Your task to perform on an android device: What's the weather going to be this weekend? Image 0: 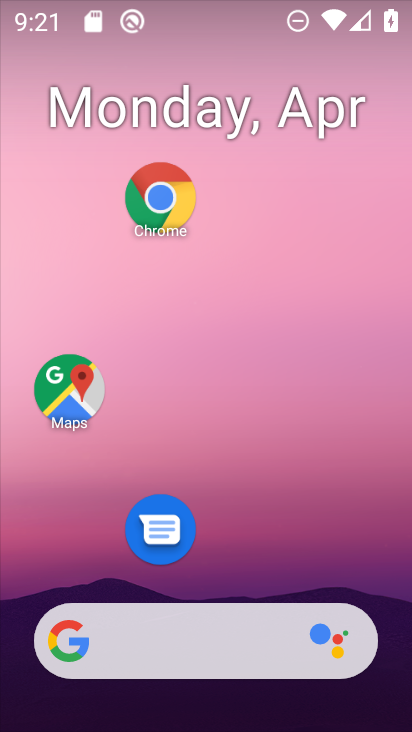
Step 0: click (155, 633)
Your task to perform on an android device: What's the weather going to be this weekend? Image 1: 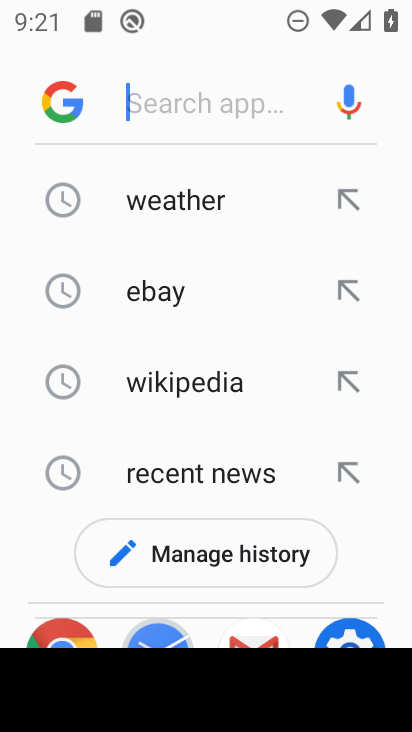
Step 1: click (159, 209)
Your task to perform on an android device: What's the weather going to be this weekend? Image 2: 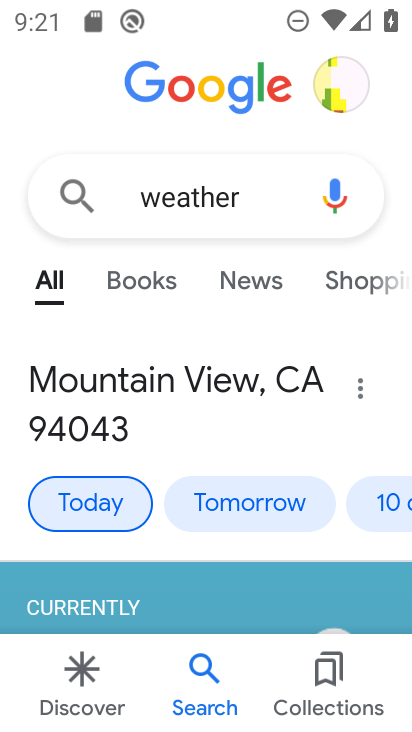
Step 2: drag from (150, 559) to (246, 159)
Your task to perform on an android device: What's the weather going to be this weekend? Image 3: 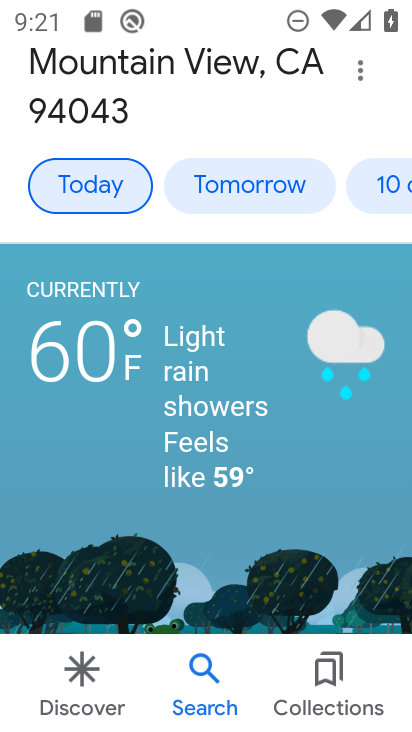
Step 3: drag from (202, 550) to (307, 106)
Your task to perform on an android device: What's the weather going to be this weekend? Image 4: 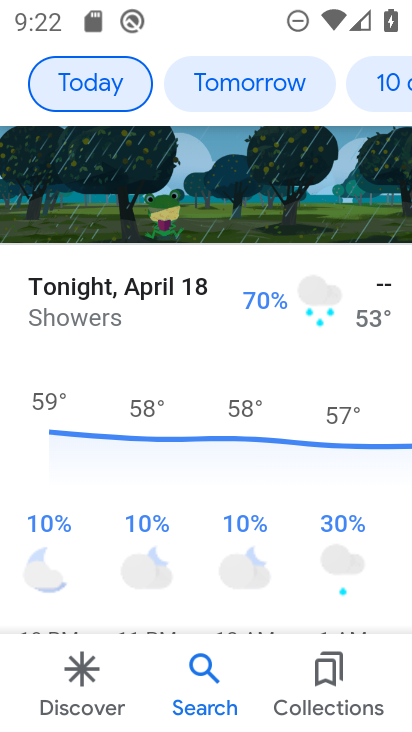
Step 4: click (377, 80)
Your task to perform on an android device: What's the weather going to be this weekend? Image 5: 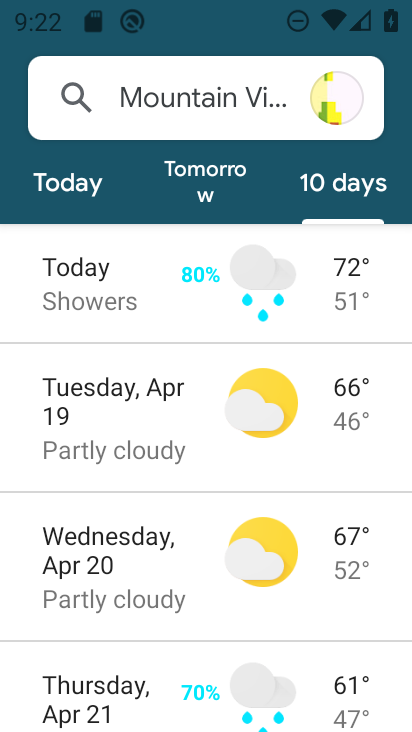
Step 5: task complete